Your task to perform on an android device: delete location history Image 0: 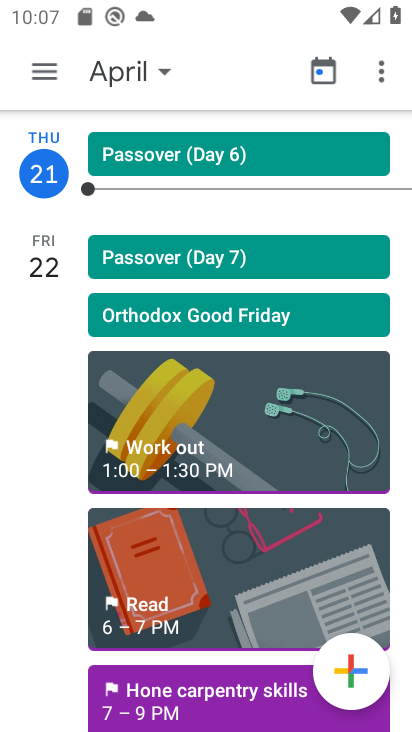
Step 0: press home button
Your task to perform on an android device: delete location history Image 1: 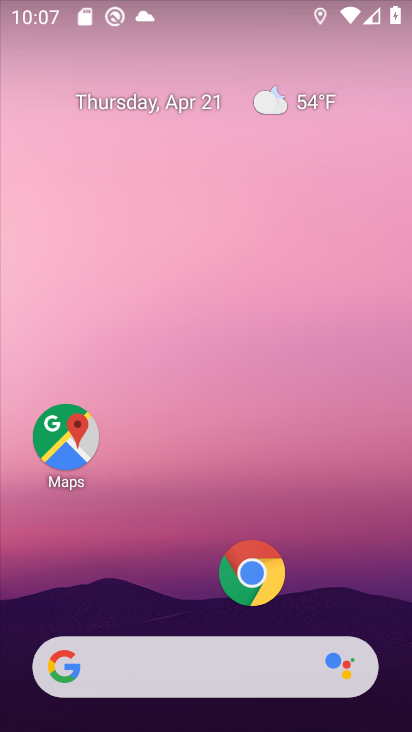
Step 1: click (51, 453)
Your task to perform on an android device: delete location history Image 2: 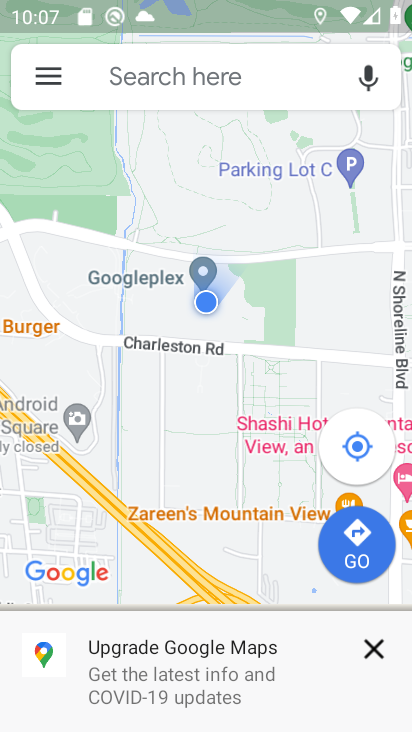
Step 2: click (53, 73)
Your task to perform on an android device: delete location history Image 3: 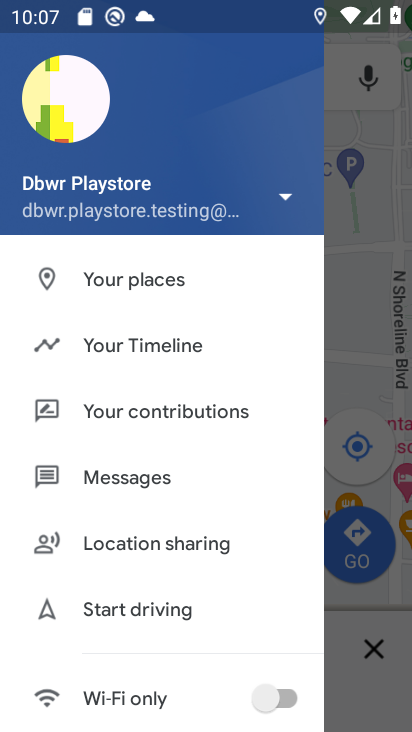
Step 3: click (100, 337)
Your task to perform on an android device: delete location history Image 4: 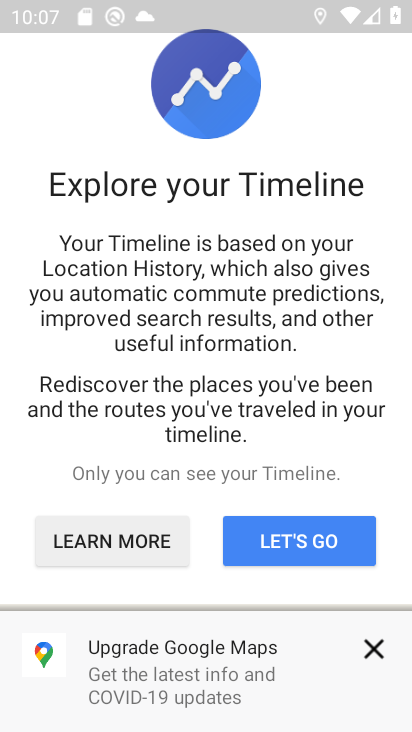
Step 4: click (290, 539)
Your task to perform on an android device: delete location history Image 5: 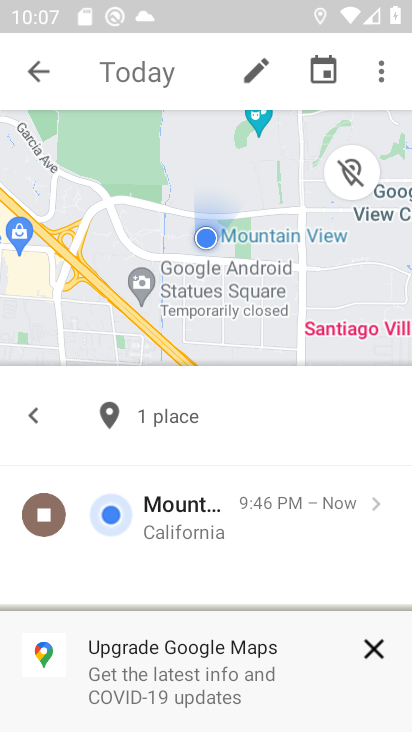
Step 5: click (381, 59)
Your task to perform on an android device: delete location history Image 6: 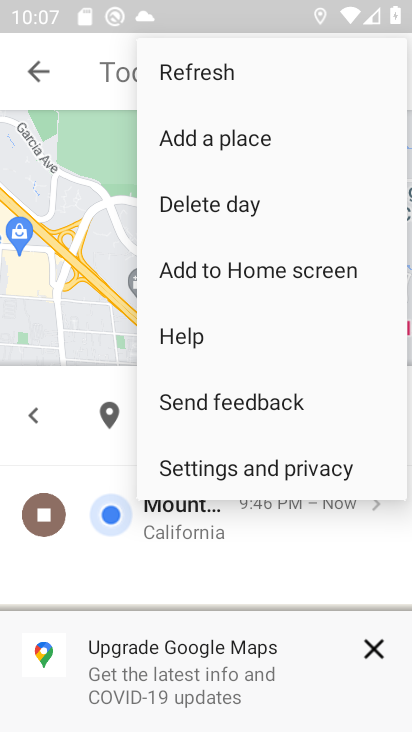
Step 6: click (227, 471)
Your task to perform on an android device: delete location history Image 7: 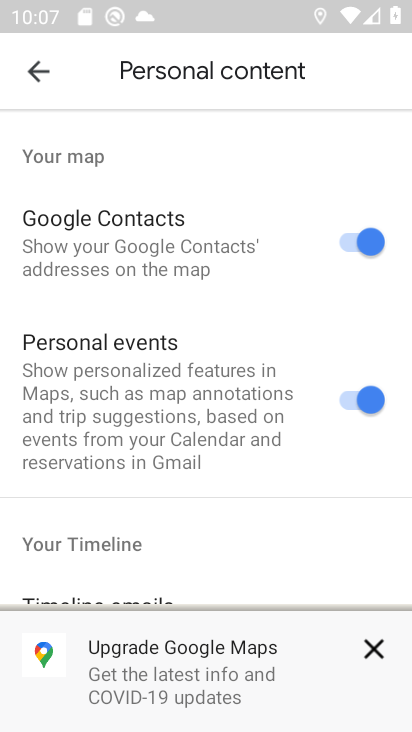
Step 7: drag from (175, 531) to (183, 184)
Your task to perform on an android device: delete location history Image 8: 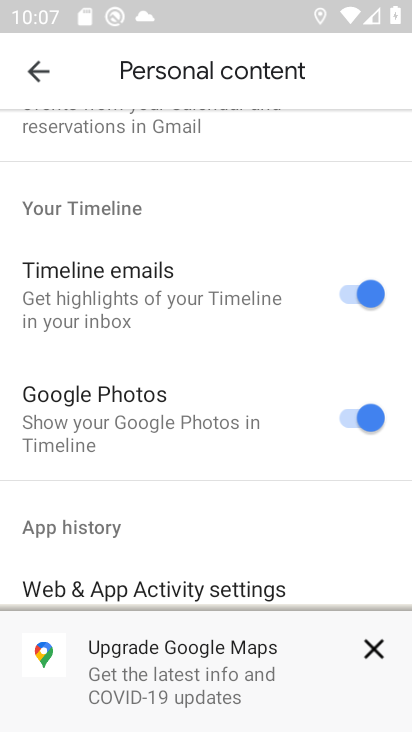
Step 8: drag from (217, 524) to (201, 282)
Your task to perform on an android device: delete location history Image 9: 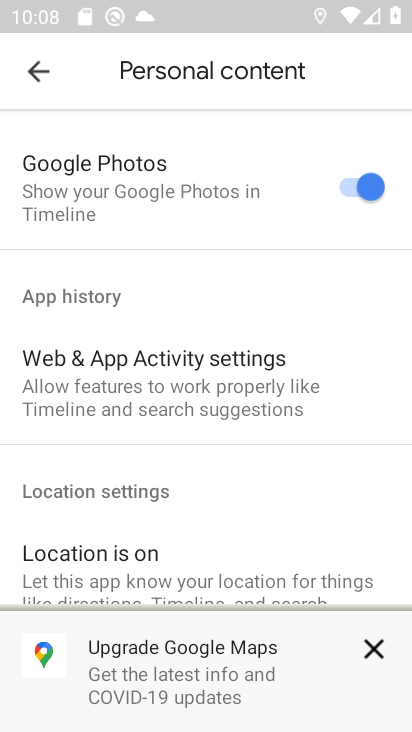
Step 9: drag from (237, 518) to (220, 250)
Your task to perform on an android device: delete location history Image 10: 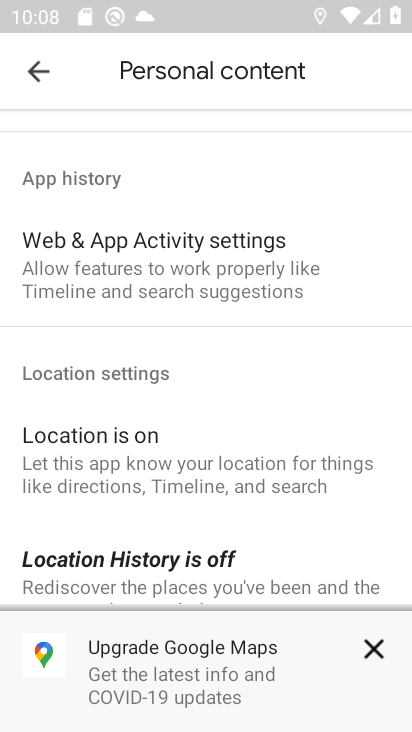
Step 10: drag from (210, 392) to (210, 240)
Your task to perform on an android device: delete location history Image 11: 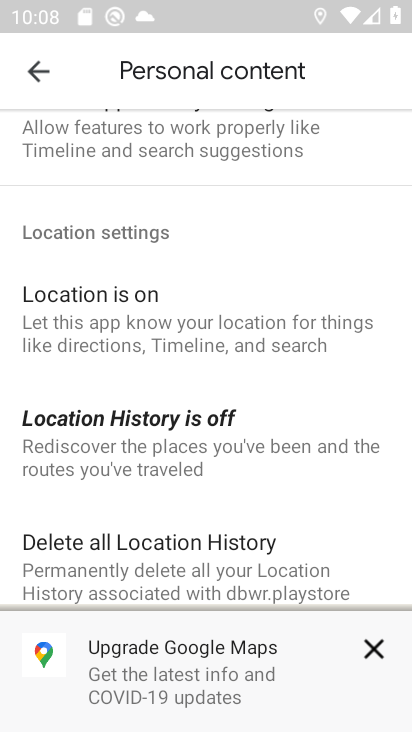
Step 11: click (208, 543)
Your task to perform on an android device: delete location history Image 12: 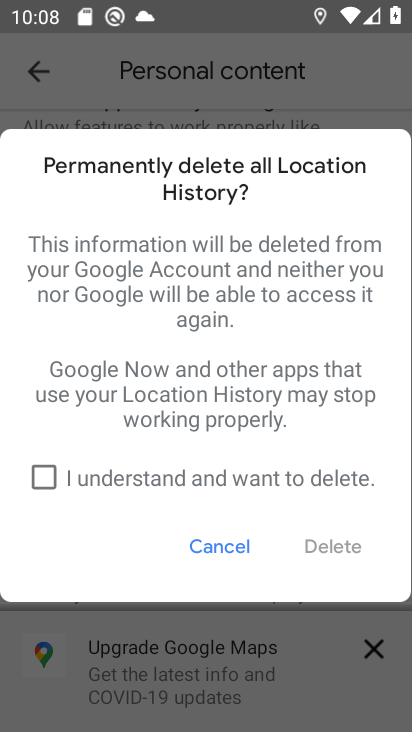
Step 12: click (120, 476)
Your task to perform on an android device: delete location history Image 13: 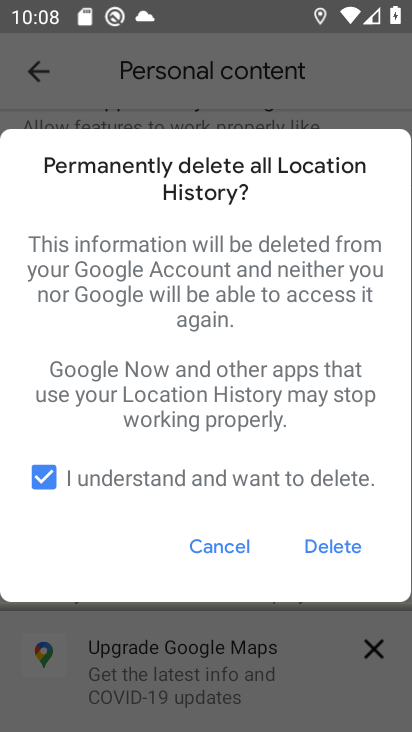
Step 13: click (308, 540)
Your task to perform on an android device: delete location history Image 14: 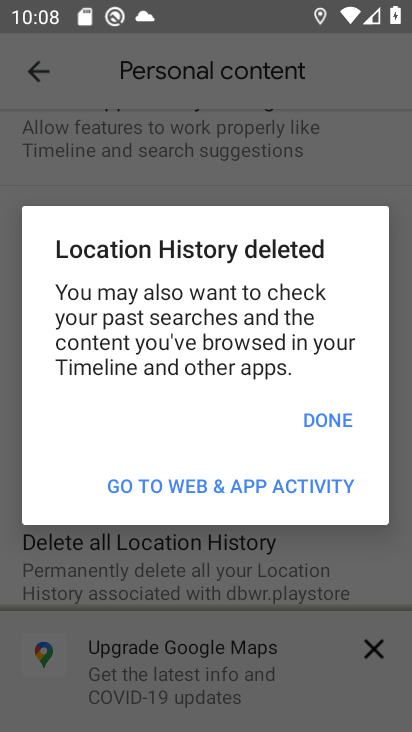
Step 14: click (333, 410)
Your task to perform on an android device: delete location history Image 15: 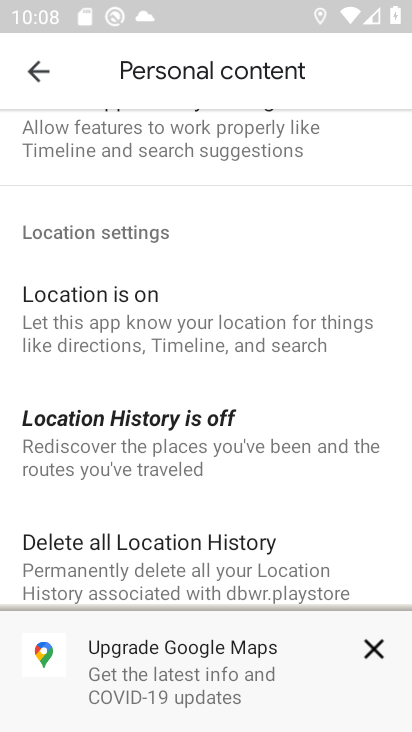
Step 15: click (109, 566)
Your task to perform on an android device: delete location history Image 16: 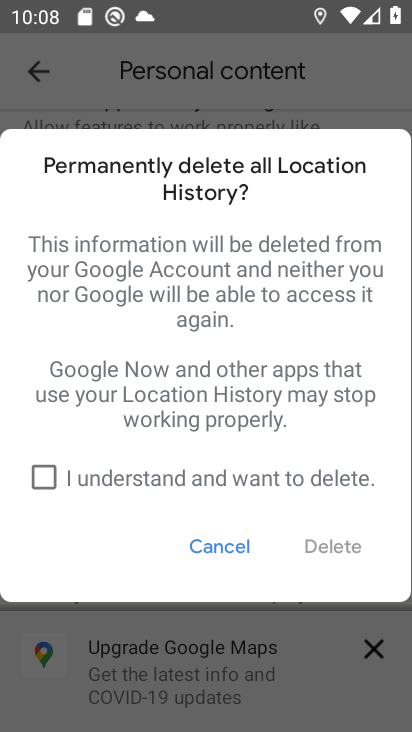
Step 16: click (124, 482)
Your task to perform on an android device: delete location history Image 17: 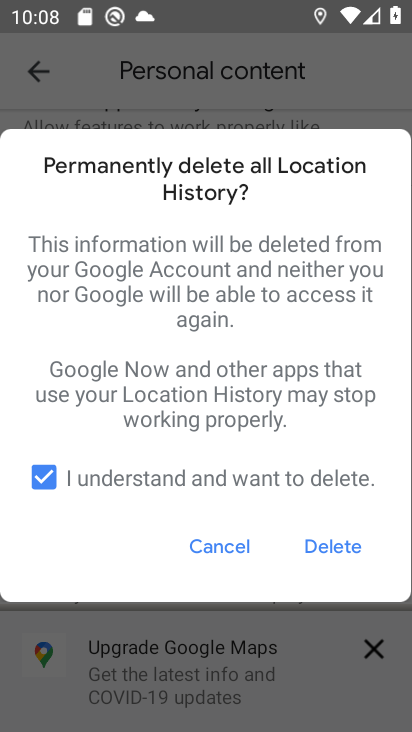
Step 17: click (336, 546)
Your task to perform on an android device: delete location history Image 18: 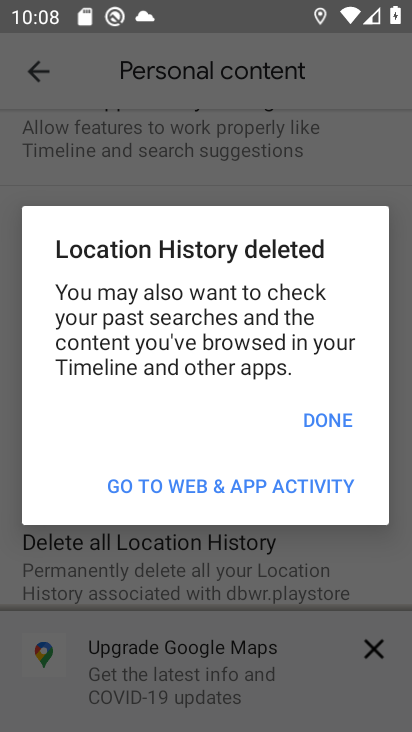
Step 18: task complete